Your task to perform on an android device: Go to calendar. Show me events next week Image 0: 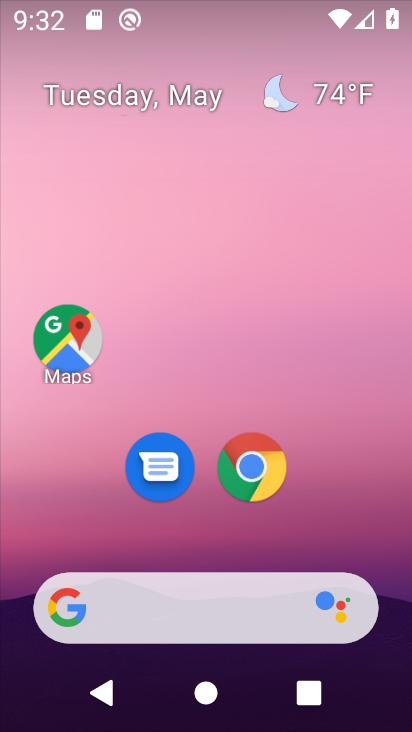
Step 0: drag from (347, 531) to (357, 185)
Your task to perform on an android device: Go to calendar. Show me events next week Image 1: 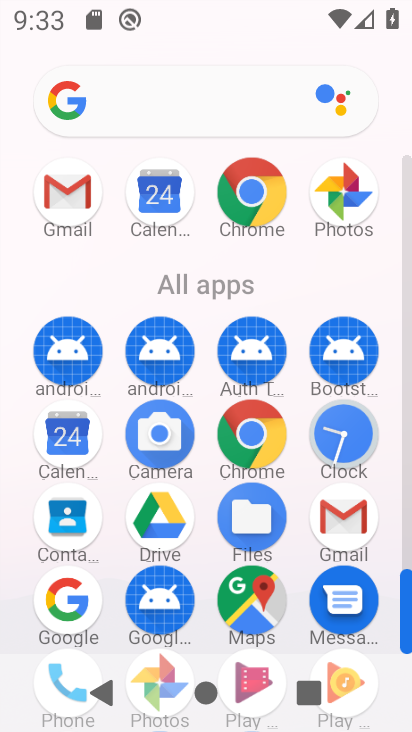
Step 1: click (69, 444)
Your task to perform on an android device: Go to calendar. Show me events next week Image 2: 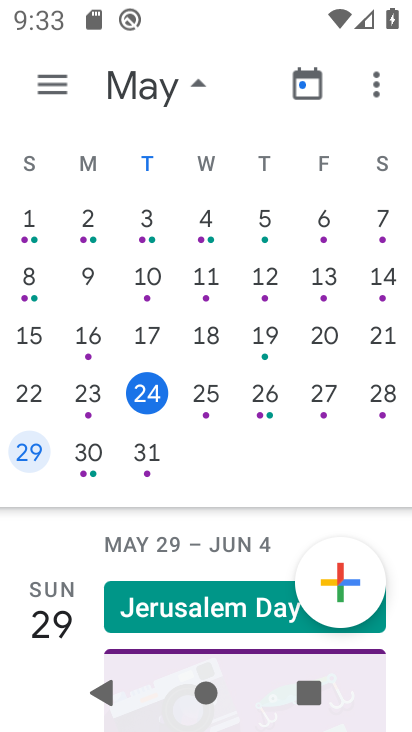
Step 2: task complete